Your task to perform on an android device: search for starred emails in the gmail app Image 0: 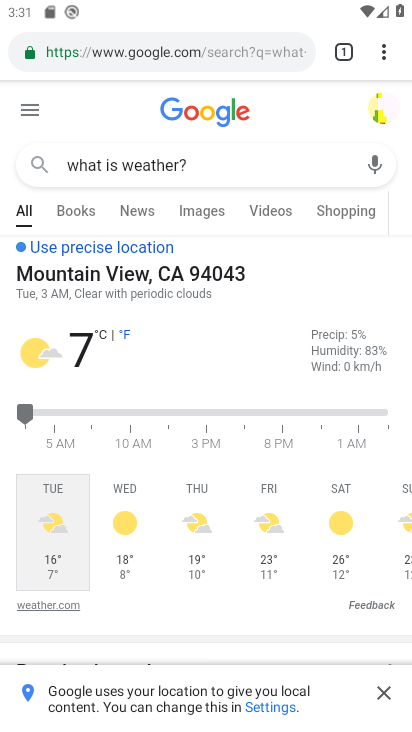
Step 0: press home button
Your task to perform on an android device: search for starred emails in the gmail app Image 1: 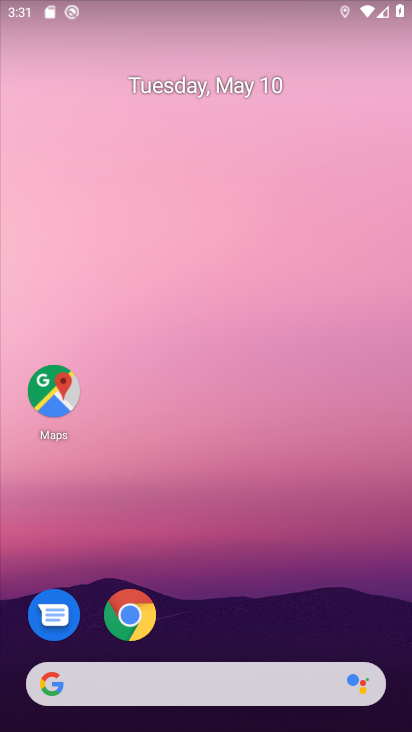
Step 1: drag from (282, 542) to (327, 101)
Your task to perform on an android device: search for starred emails in the gmail app Image 2: 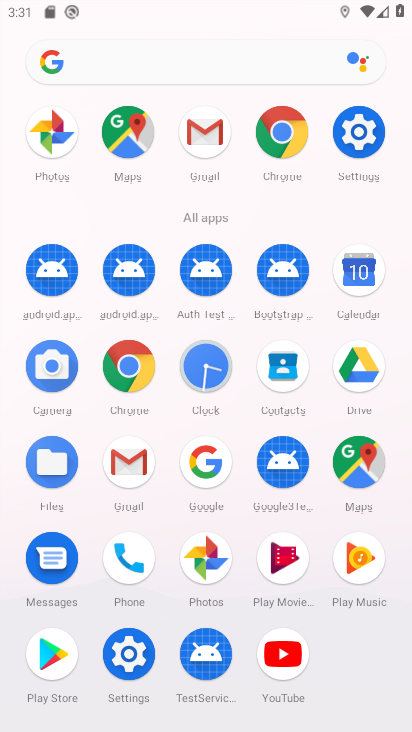
Step 2: click (211, 140)
Your task to perform on an android device: search for starred emails in the gmail app Image 3: 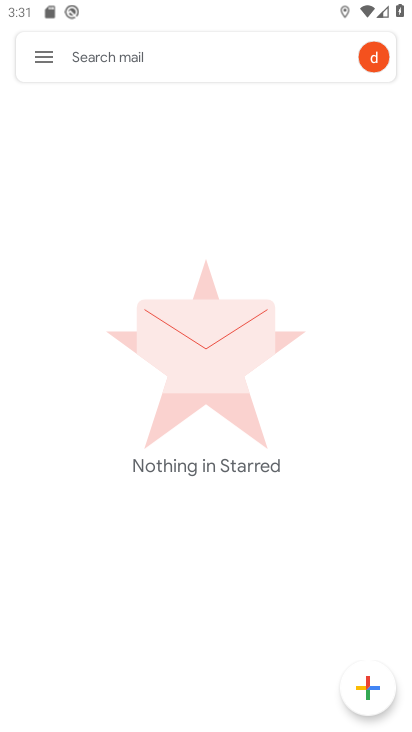
Step 3: click (48, 57)
Your task to perform on an android device: search for starred emails in the gmail app Image 4: 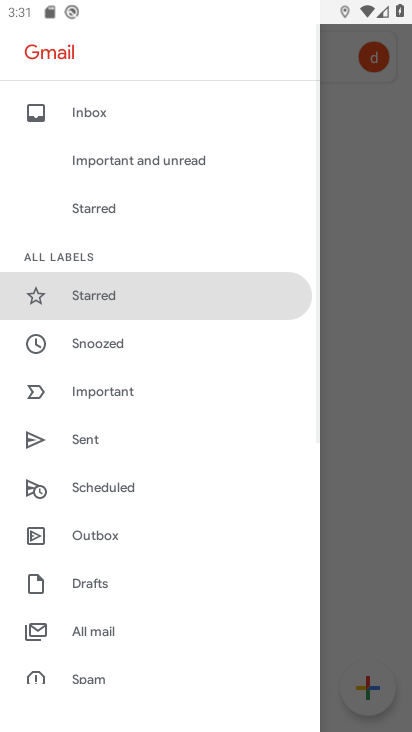
Step 4: click (165, 296)
Your task to perform on an android device: search for starred emails in the gmail app Image 5: 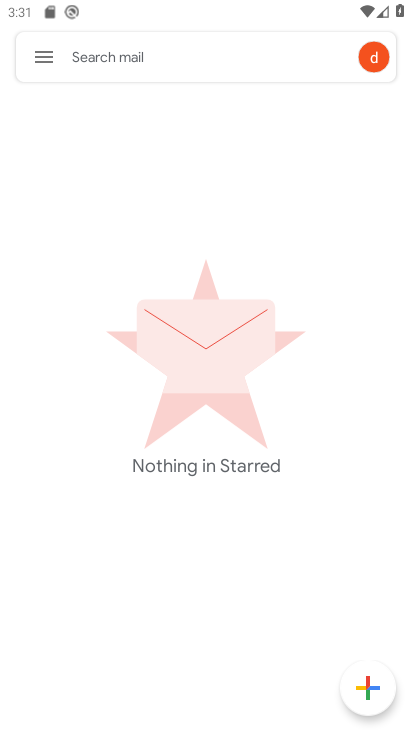
Step 5: task complete